Your task to perform on an android device: turn on javascript in the chrome app Image 0: 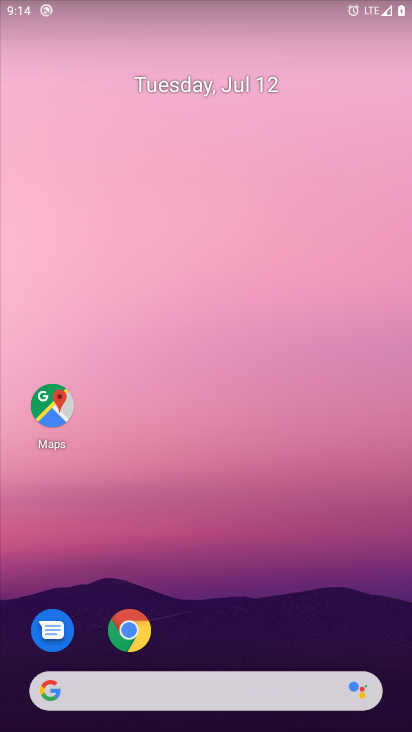
Step 0: click (134, 622)
Your task to perform on an android device: turn on javascript in the chrome app Image 1: 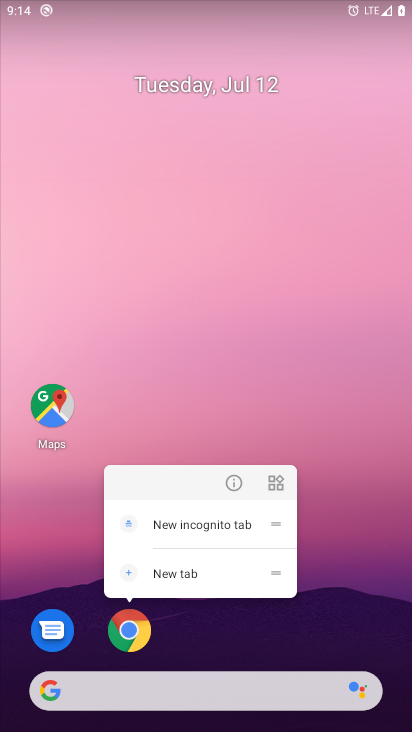
Step 1: click (134, 622)
Your task to perform on an android device: turn on javascript in the chrome app Image 2: 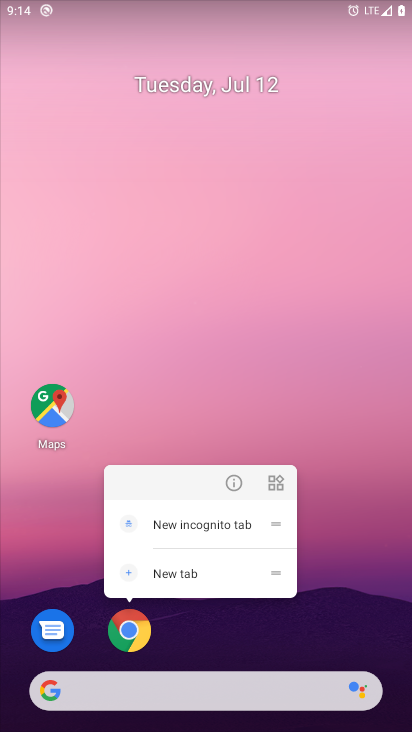
Step 2: click (134, 622)
Your task to perform on an android device: turn on javascript in the chrome app Image 3: 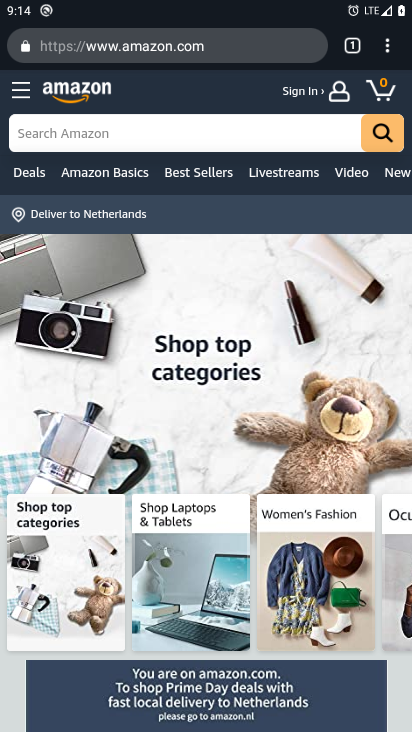
Step 3: drag from (388, 47) to (223, 541)
Your task to perform on an android device: turn on javascript in the chrome app Image 4: 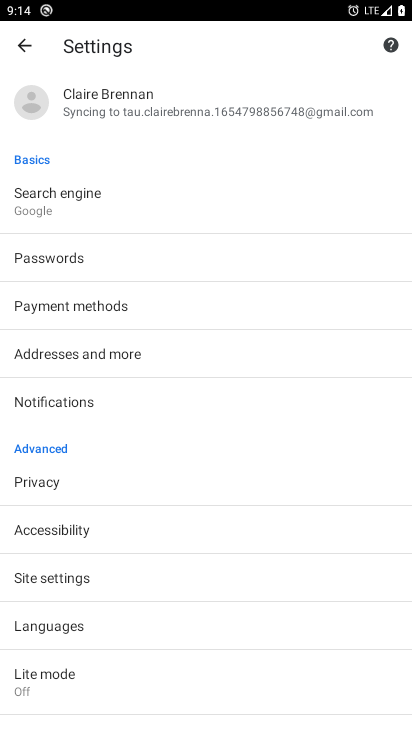
Step 4: click (72, 575)
Your task to perform on an android device: turn on javascript in the chrome app Image 5: 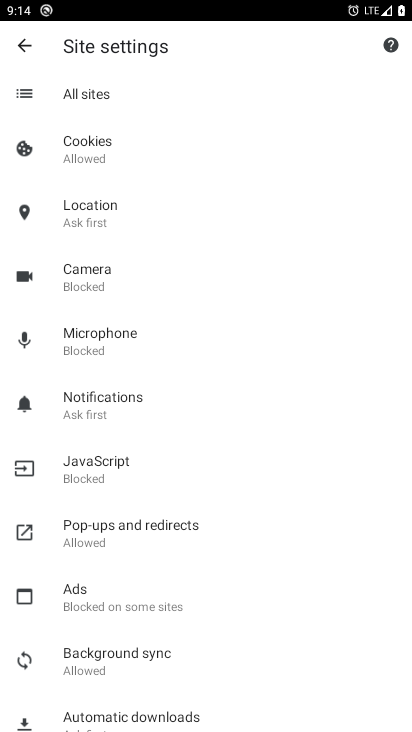
Step 5: click (75, 466)
Your task to perform on an android device: turn on javascript in the chrome app Image 6: 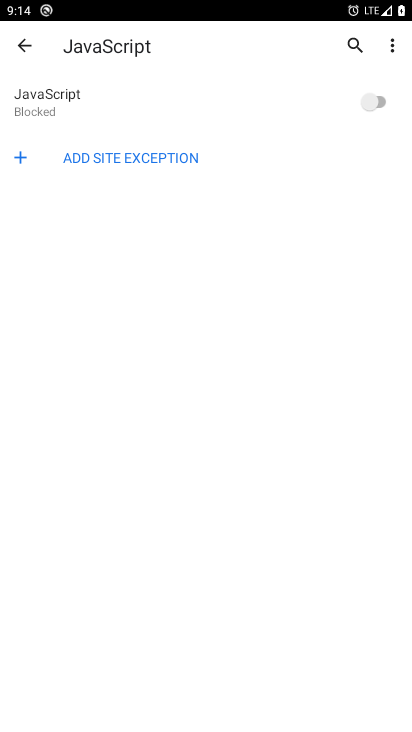
Step 6: click (364, 100)
Your task to perform on an android device: turn on javascript in the chrome app Image 7: 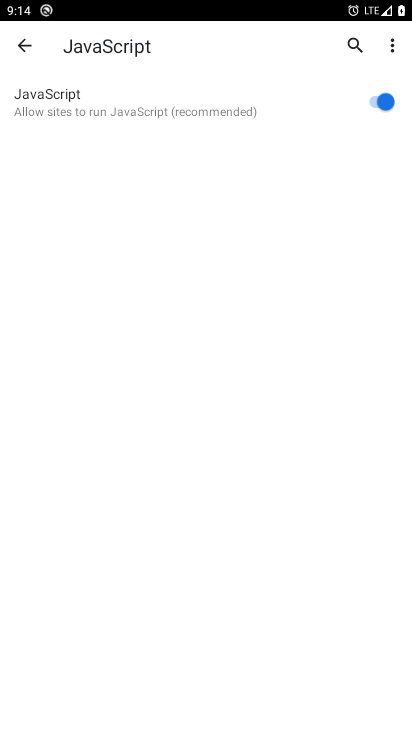
Step 7: task complete